Your task to perform on an android device: allow notifications from all sites in the chrome app Image 0: 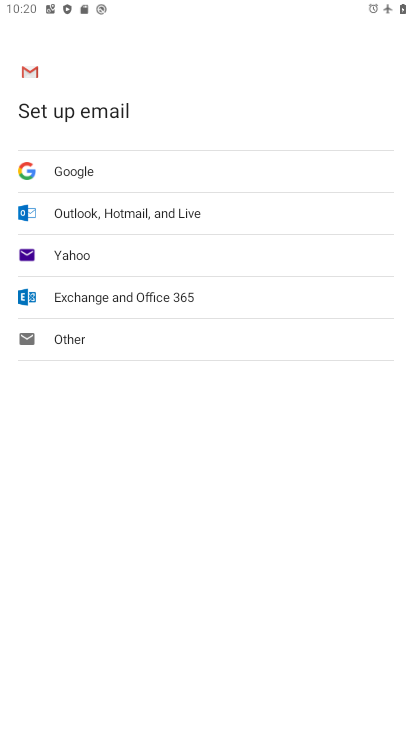
Step 0: press home button
Your task to perform on an android device: allow notifications from all sites in the chrome app Image 1: 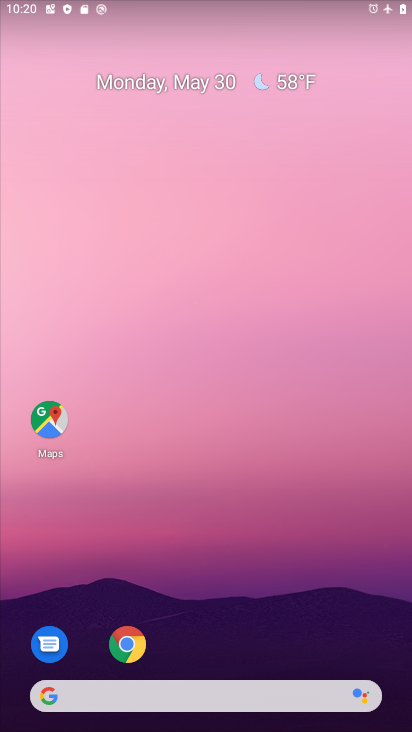
Step 1: click (129, 640)
Your task to perform on an android device: allow notifications from all sites in the chrome app Image 2: 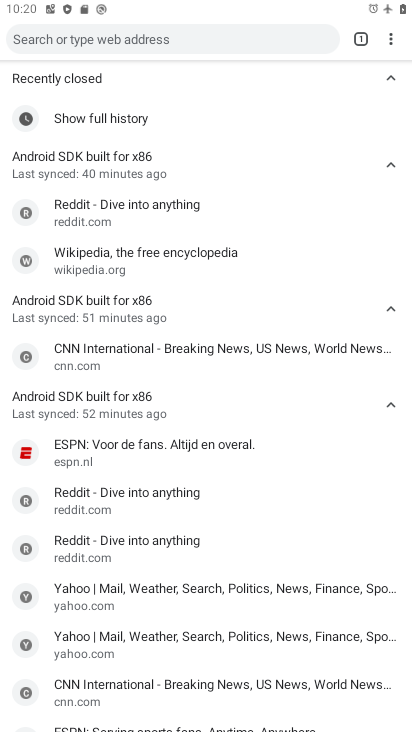
Step 2: click (392, 44)
Your task to perform on an android device: allow notifications from all sites in the chrome app Image 3: 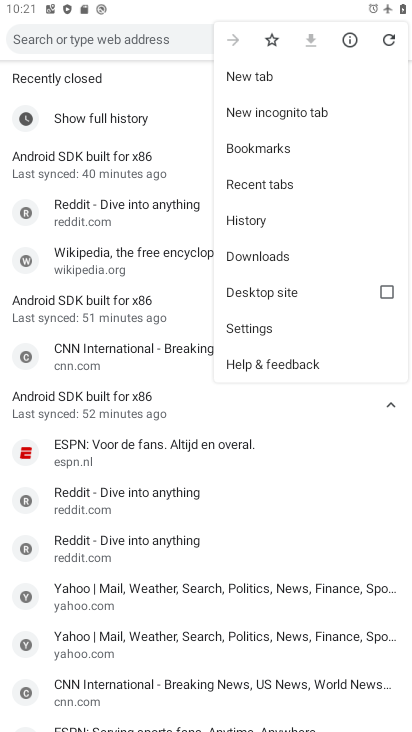
Step 3: click (255, 327)
Your task to perform on an android device: allow notifications from all sites in the chrome app Image 4: 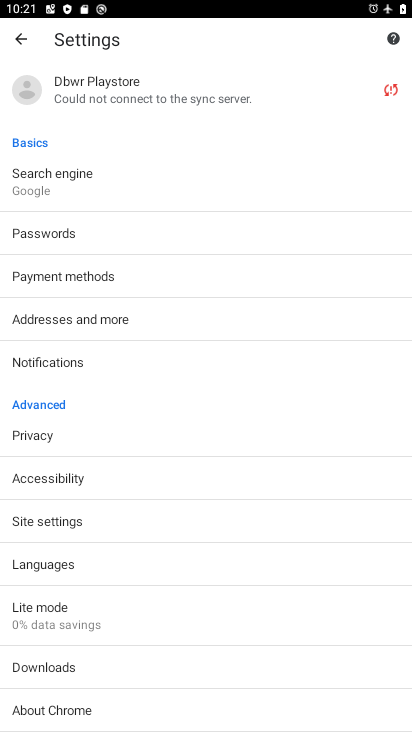
Step 4: click (50, 523)
Your task to perform on an android device: allow notifications from all sites in the chrome app Image 5: 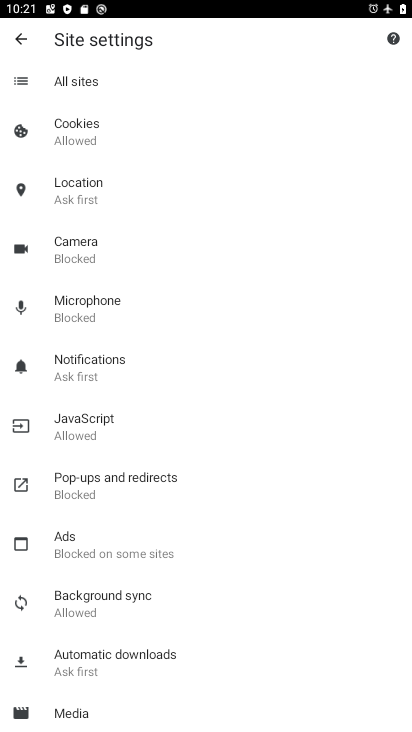
Step 5: click (83, 368)
Your task to perform on an android device: allow notifications from all sites in the chrome app Image 6: 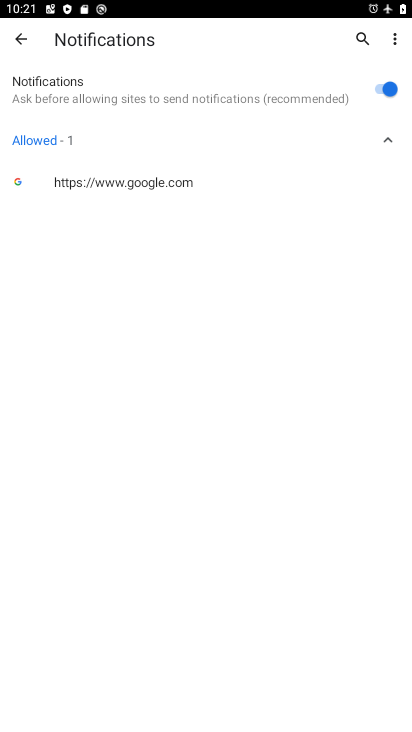
Step 6: task complete